Your task to perform on an android device: Open the Play Movies app and select the watchlist tab. Image 0: 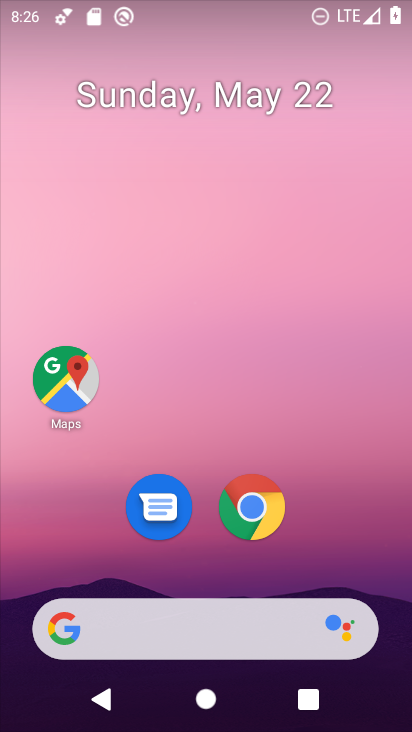
Step 0: drag from (275, 684) to (228, 55)
Your task to perform on an android device: Open the Play Movies app and select the watchlist tab. Image 1: 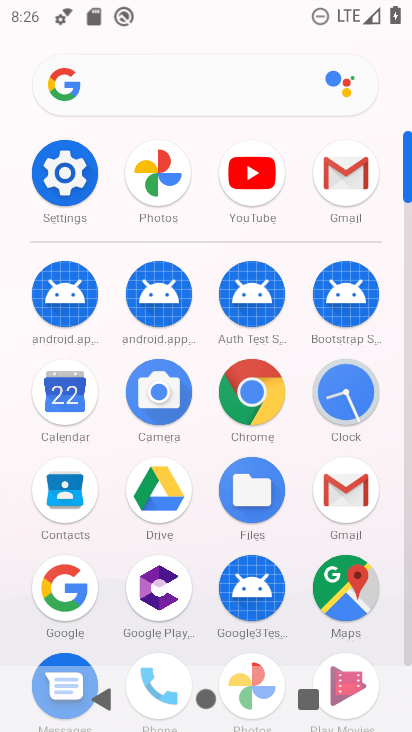
Step 1: click (337, 652)
Your task to perform on an android device: Open the Play Movies app and select the watchlist tab. Image 2: 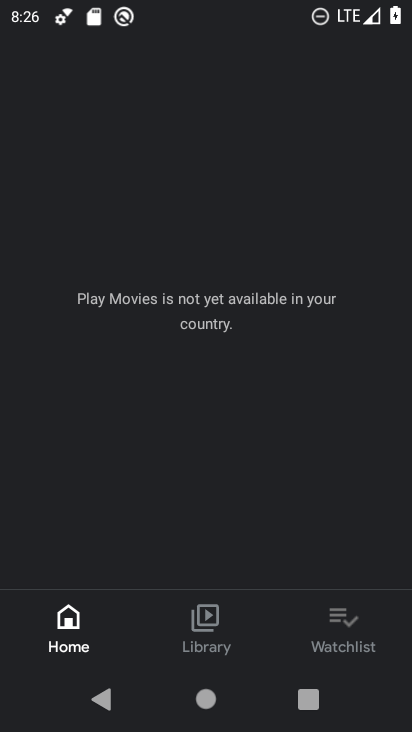
Step 2: click (342, 633)
Your task to perform on an android device: Open the Play Movies app and select the watchlist tab. Image 3: 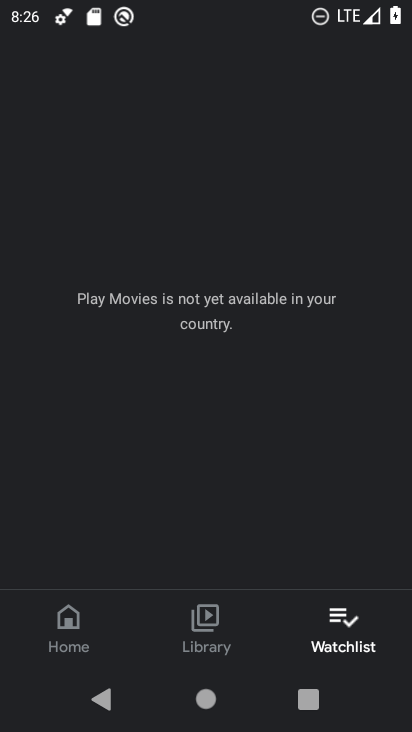
Step 3: task complete